Your task to perform on an android device: Turn on the flashlight Image 0: 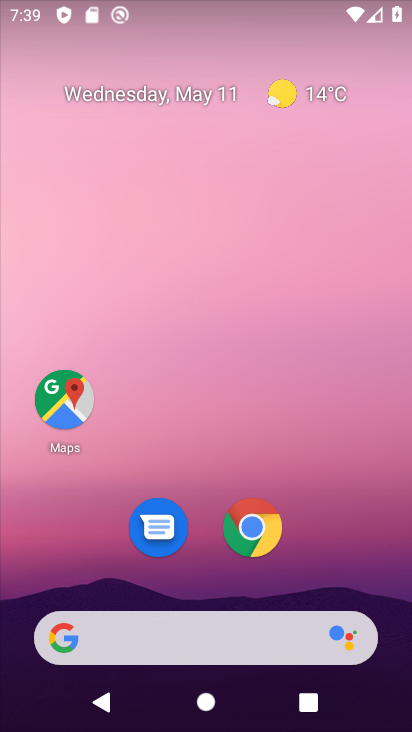
Step 0: drag from (238, 41) to (216, 549)
Your task to perform on an android device: Turn on the flashlight Image 1: 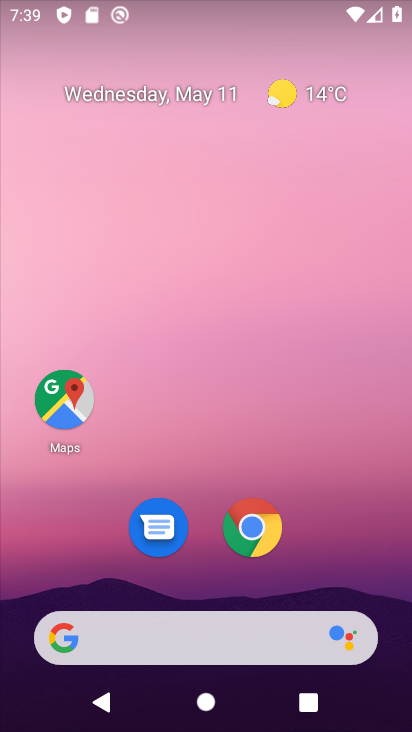
Step 1: task complete